Your task to perform on an android device: turn on translation in the chrome app Image 0: 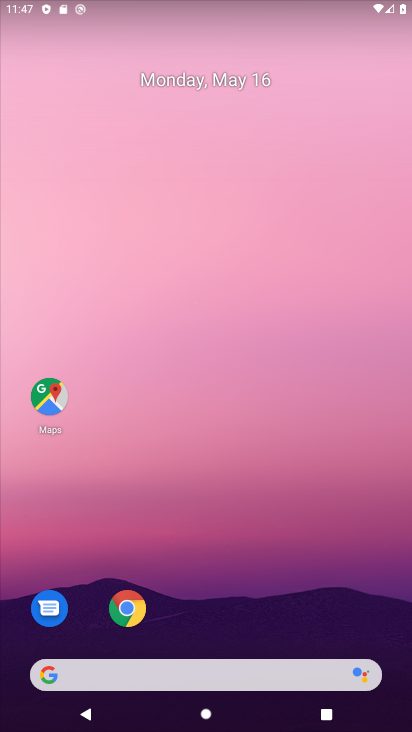
Step 0: drag from (344, 615) to (378, 281)
Your task to perform on an android device: turn on translation in the chrome app Image 1: 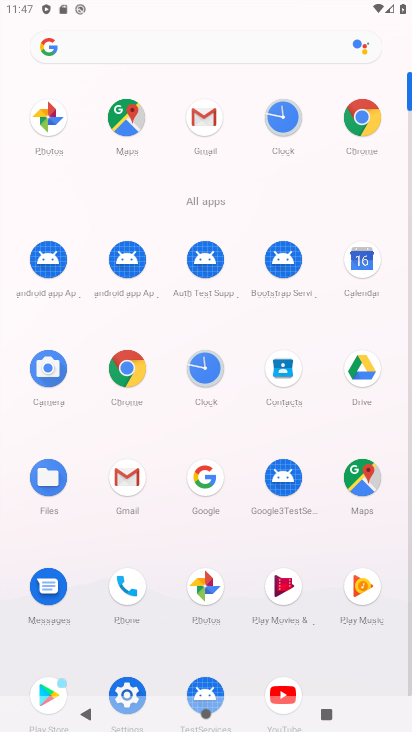
Step 1: click (138, 382)
Your task to perform on an android device: turn on translation in the chrome app Image 2: 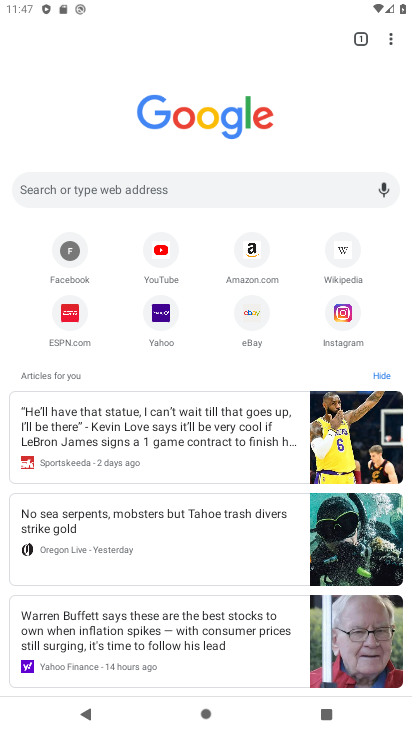
Step 2: click (390, 42)
Your task to perform on an android device: turn on translation in the chrome app Image 3: 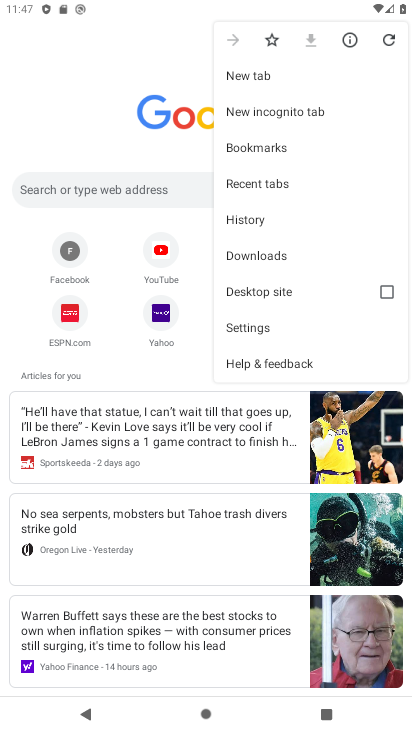
Step 3: click (287, 325)
Your task to perform on an android device: turn on translation in the chrome app Image 4: 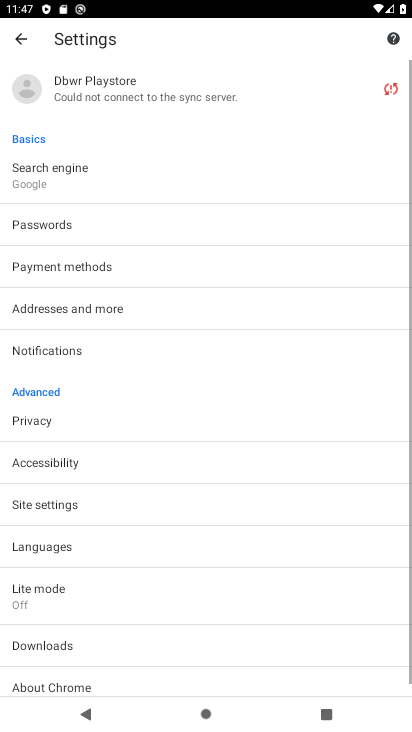
Step 4: drag from (268, 473) to (287, 363)
Your task to perform on an android device: turn on translation in the chrome app Image 5: 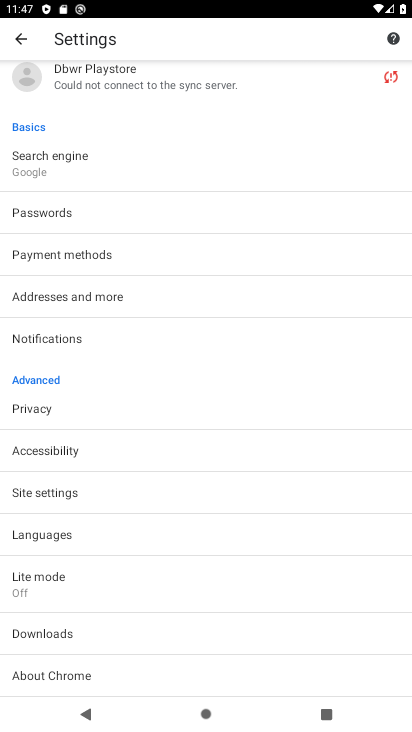
Step 5: drag from (282, 525) to (297, 387)
Your task to perform on an android device: turn on translation in the chrome app Image 6: 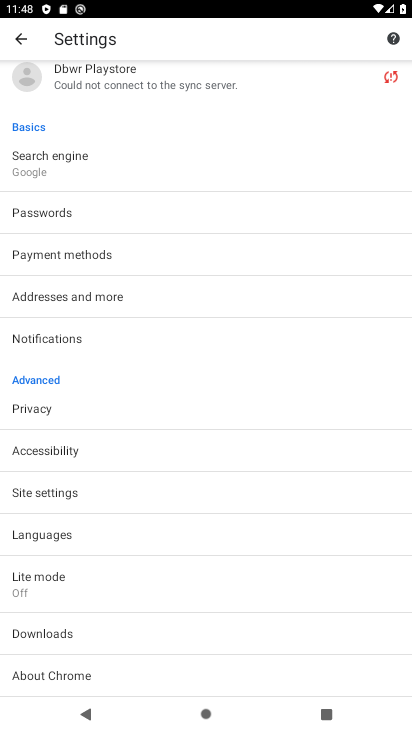
Step 6: drag from (296, 294) to (296, 379)
Your task to perform on an android device: turn on translation in the chrome app Image 7: 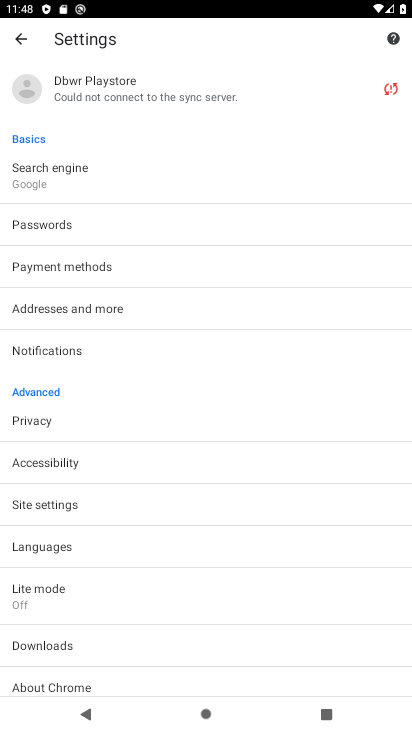
Step 7: drag from (279, 515) to (308, 356)
Your task to perform on an android device: turn on translation in the chrome app Image 8: 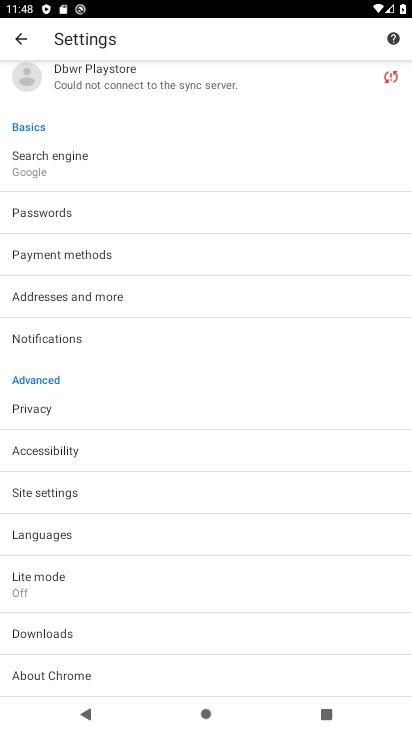
Step 8: click (199, 543)
Your task to perform on an android device: turn on translation in the chrome app Image 9: 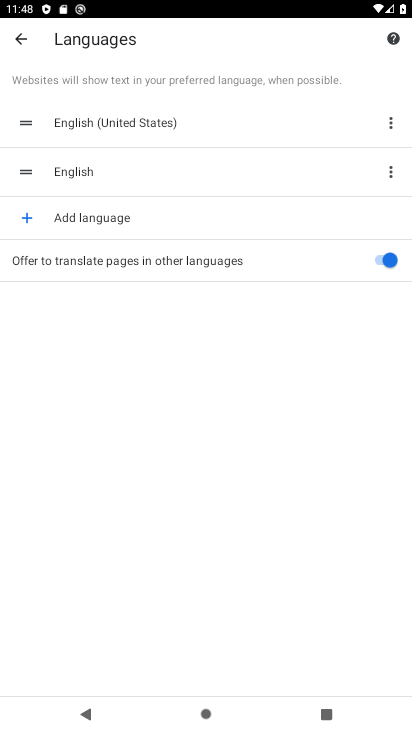
Step 9: task complete